Your task to perform on an android device: show emergency info Image 0: 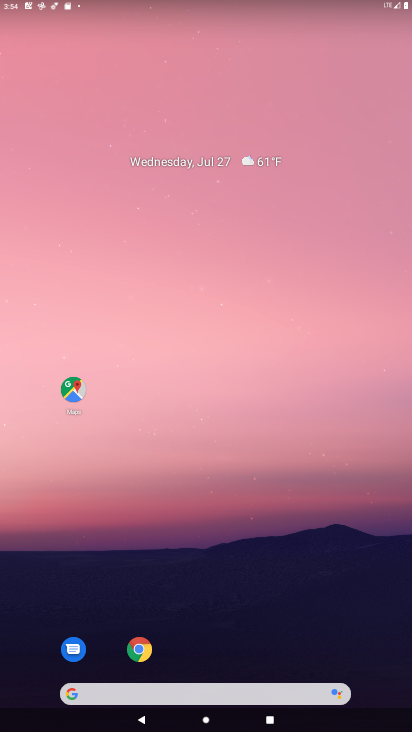
Step 0: drag from (207, 631) to (234, 118)
Your task to perform on an android device: show emergency info Image 1: 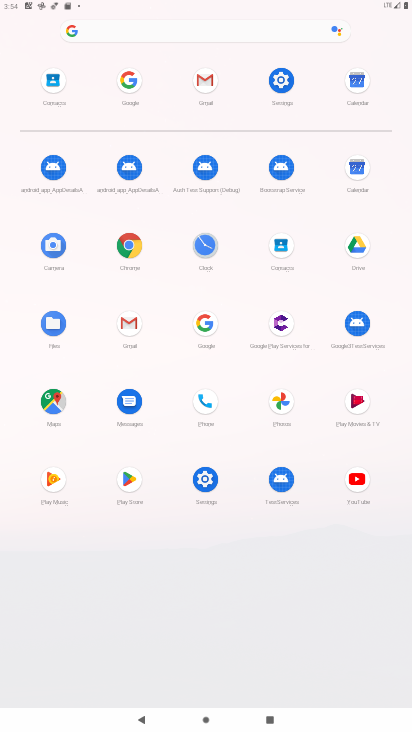
Step 1: click (282, 82)
Your task to perform on an android device: show emergency info Image 2: 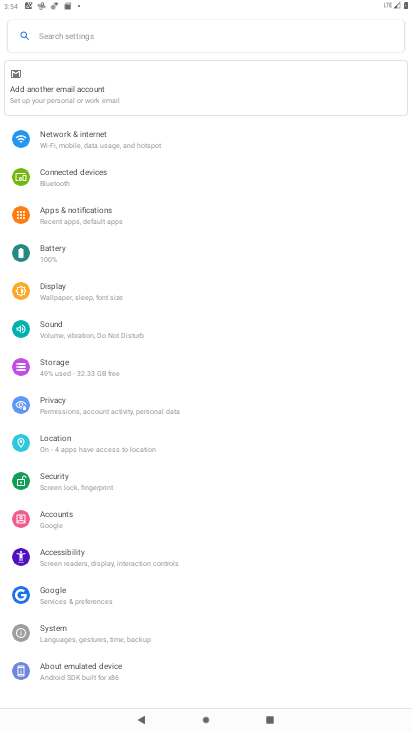
Step 2: click (64, 666)
Your task to perform on an android device: show emergency info Image 3: 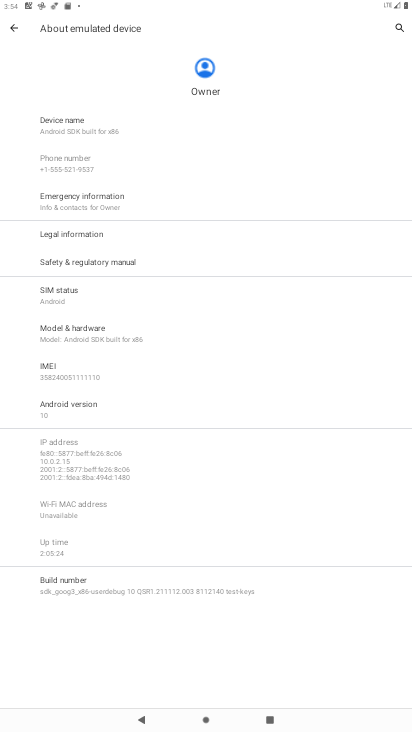
Step 3: click (81, 205)
Your task to perform on an android device: show emergency info Image 4: 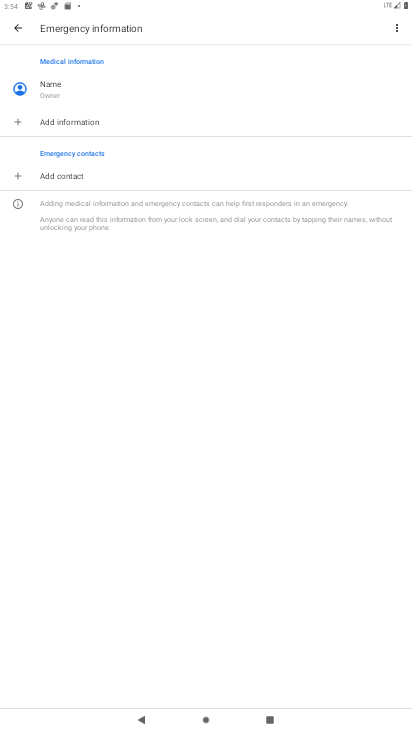
Step 4: task complete